Your task to perform on an android device: make emails show in primary in the gmail app Image 0: 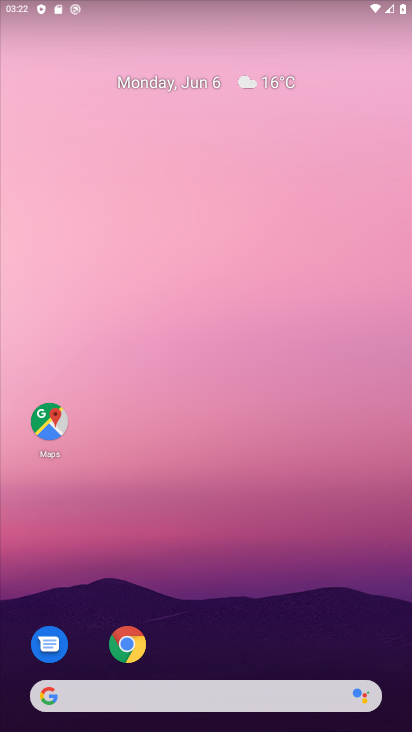
Step 0: drag from (393, 687) to (352, 53)
Your task to perform on an android device: make emails show in primary in the gmail app Image 1: 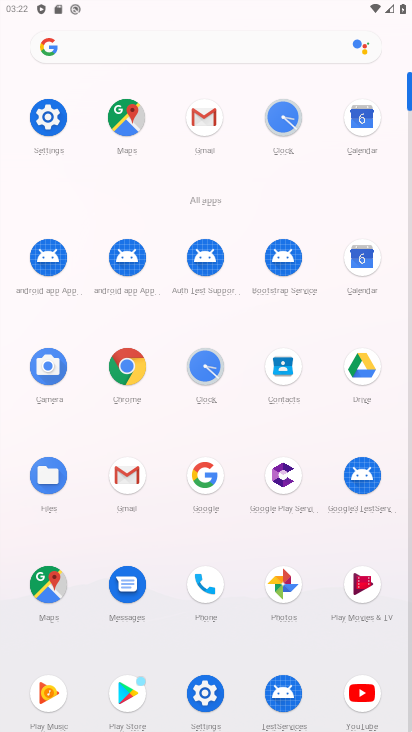
Step 1: click (132, 475)
Your task to perform on an android device: make emails show in primary in the gmail app Image 2: 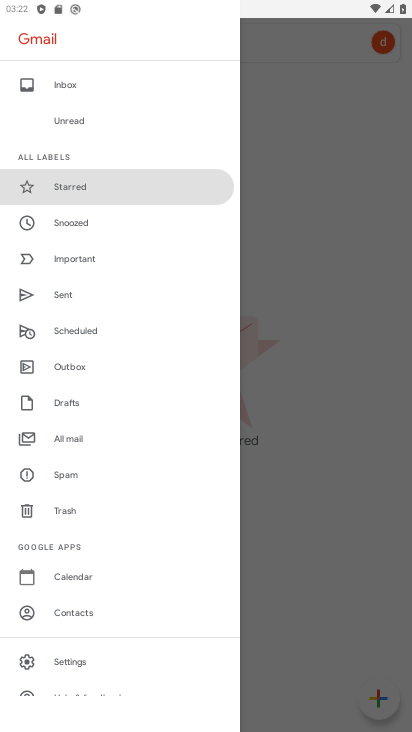
Step 2: click (76, 656)
Your task to perform on an android device: make emails show in primary in the gmail app Image 3: 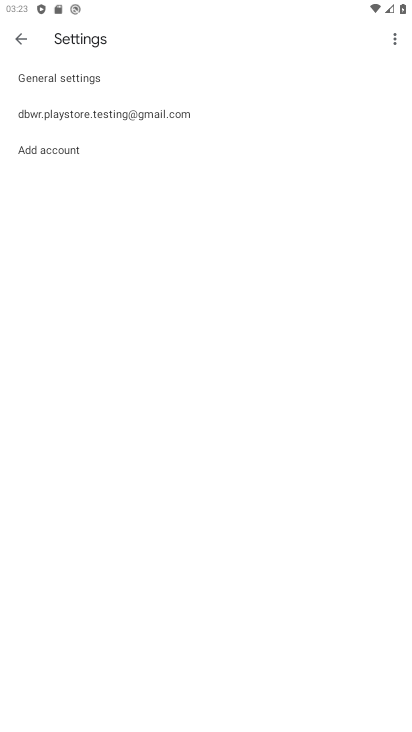
Step 3: click (62, 110)
Your task to perform on an android device: make emails show in primary in the gmail app Image 4: 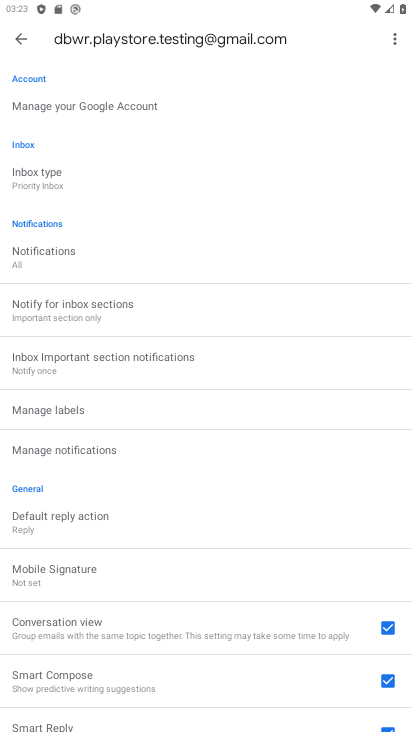
Step 4: click (32, 166)
Your task to perform on an android device: make emails show in primary in the gmail app Image 5: 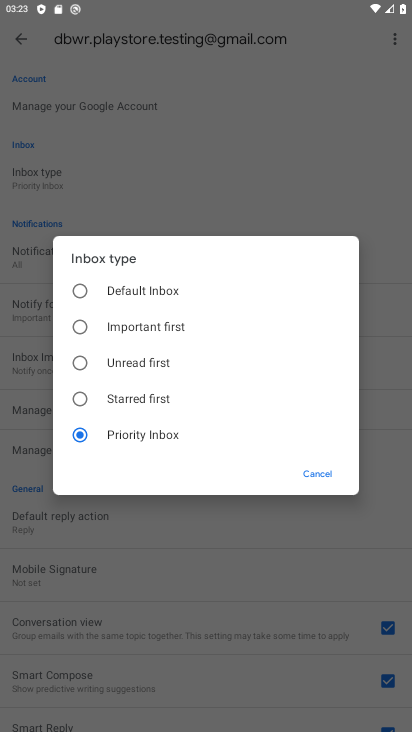
Step 5: click (71, 284)
Your task to perform on an android device: make emails show in primary in the gmail app Image 6: 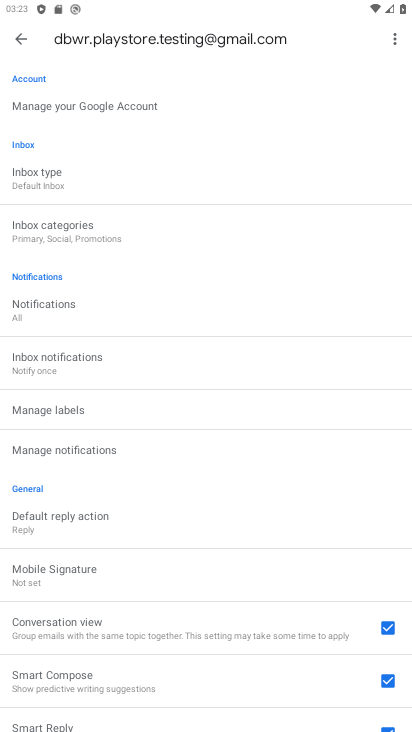
Step 6: click (59, 235)
Your task to perform on an android device: make emails show in primary in the gmail app Image 7: 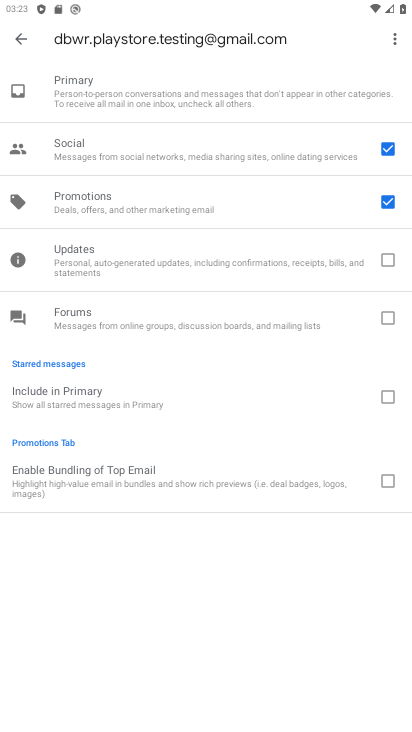
Step 7: click (385, 191)
Your task to perform on an android device: make emails show in primary in the gmail app Image 8: 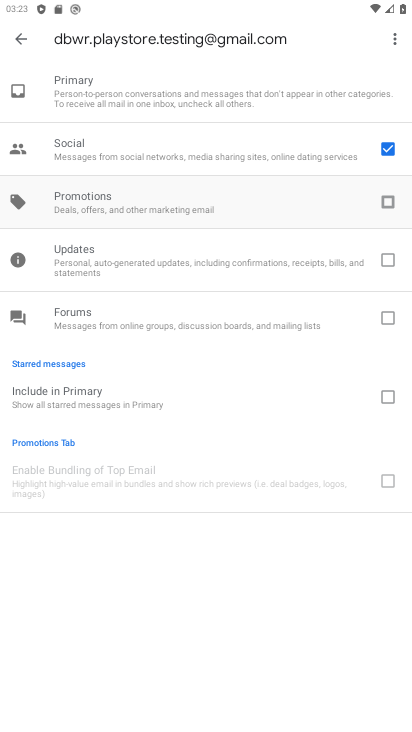
Step 8: click (386, 149)
Your task to perform on an android device: make emails show in primary in the gmail app Image 9: 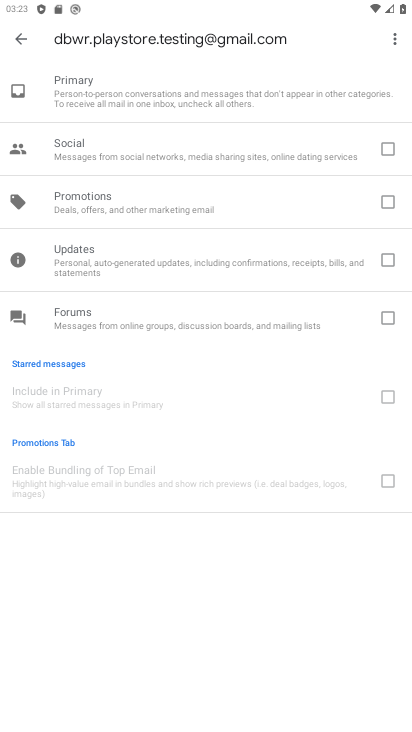
Step 9: click (23, 35)
Your task to perform on an android device: make emails show in primary in the gmail app Image 10: 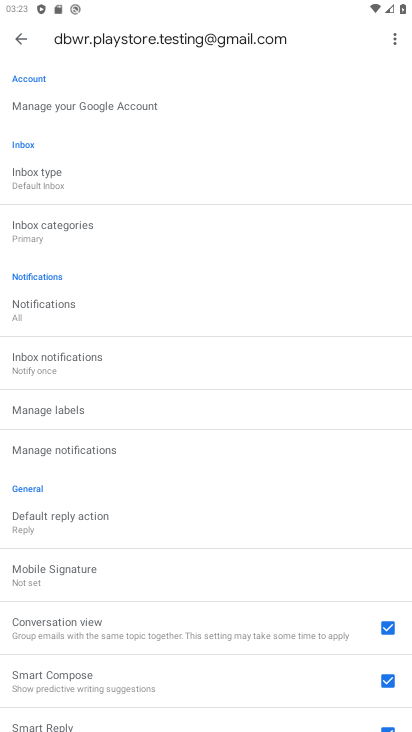
Step 10: task complete